Your task to perform on an android device: Check the settings for the Amazon Music app Image 0: 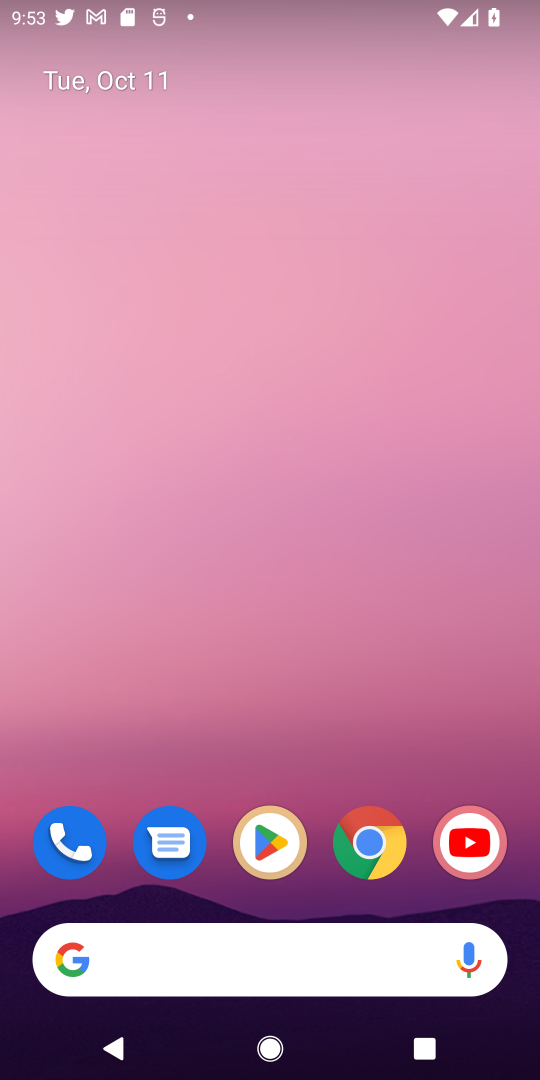
Step 0: click (371, 837)
Your task to perform on an android device: Check the settings for the Amazon Music app Image 1: 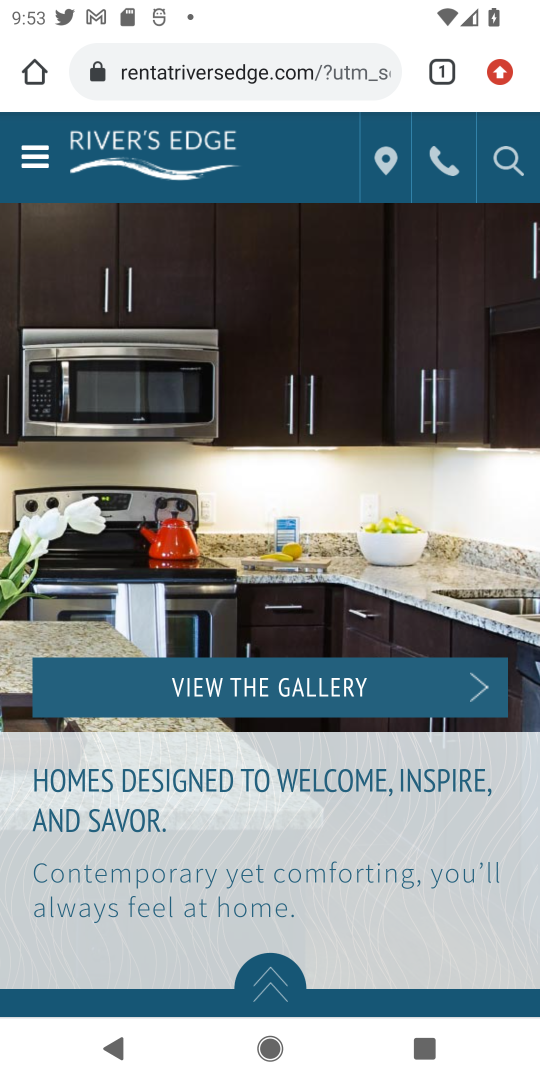
Step 1: click (193, 71)
Your task to perform on an android device: Check the settings for the Amazon Music app Image 2: 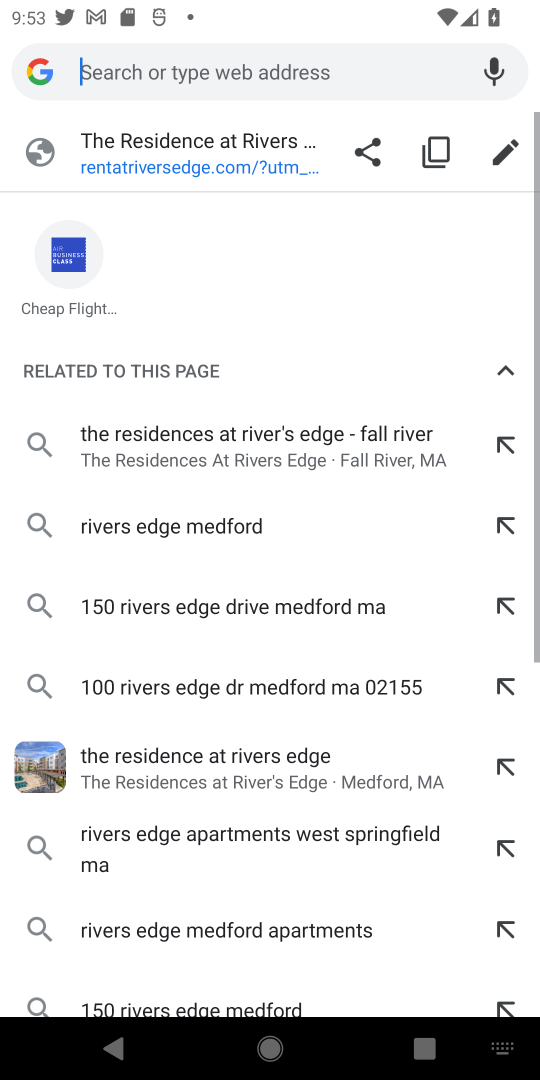
Step 2: press home button
Your task to perform on an android device: Check the settings for the Amazon Music app Image 3: 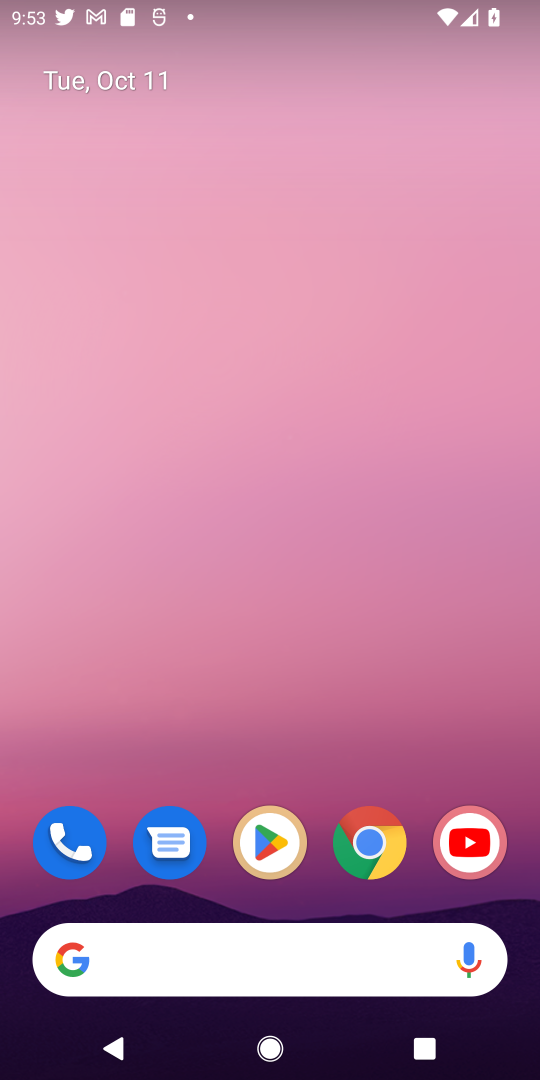
Step 3: drag from (306, 694) to (339, 276)
Your task to perform on an android device: Check the settings for the Amazon Music app Image 4: 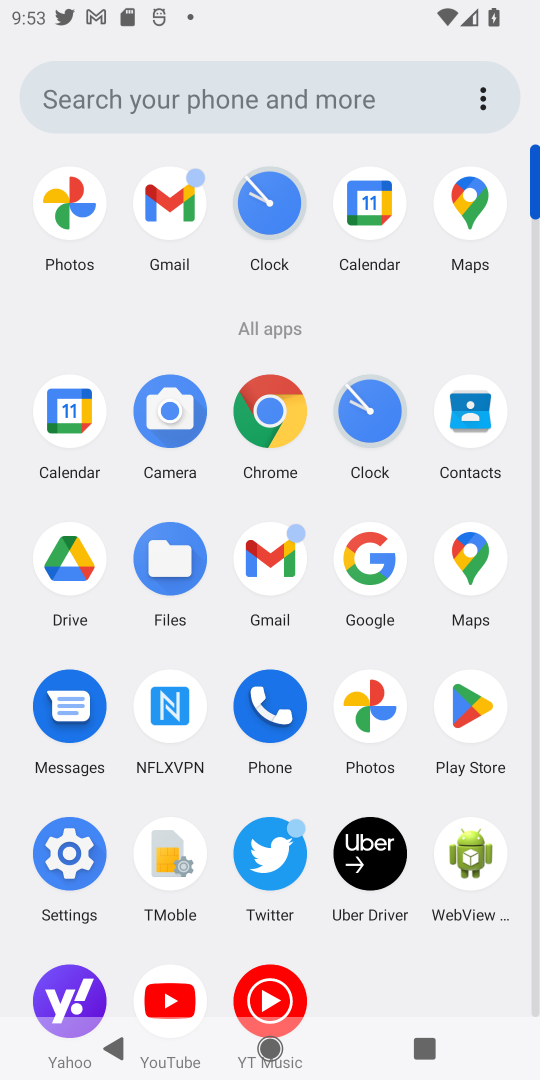
Step 4: drag from (141, 869) to (243, 437)
Your task to perform on an android device: Check the settings for the Amazon Music app Image 5: 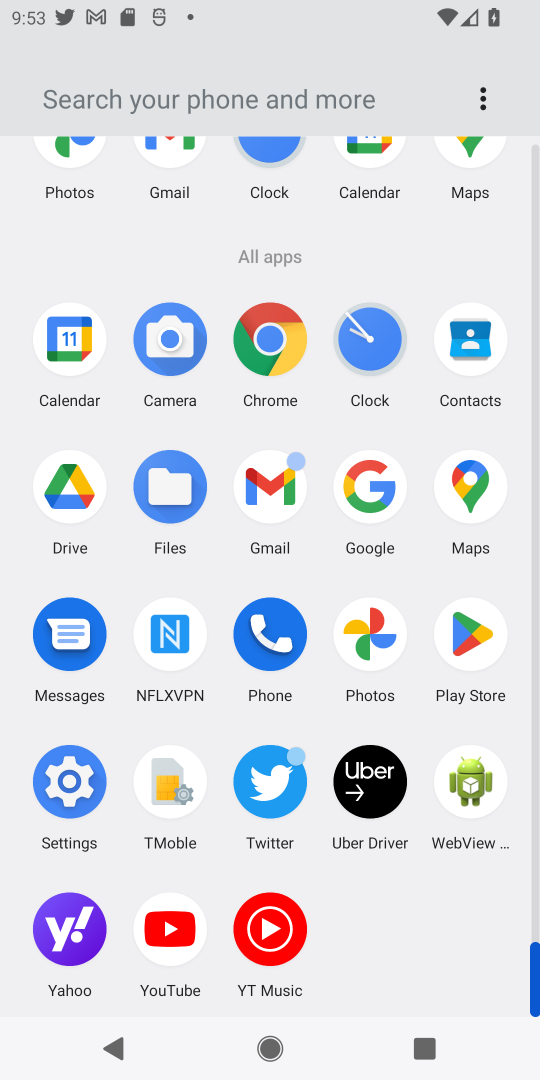
Step 5: drag from (308, 498) to (307, 930)
Your task to perform on an android device: Check the settings for the Amazon Music app Image 6: 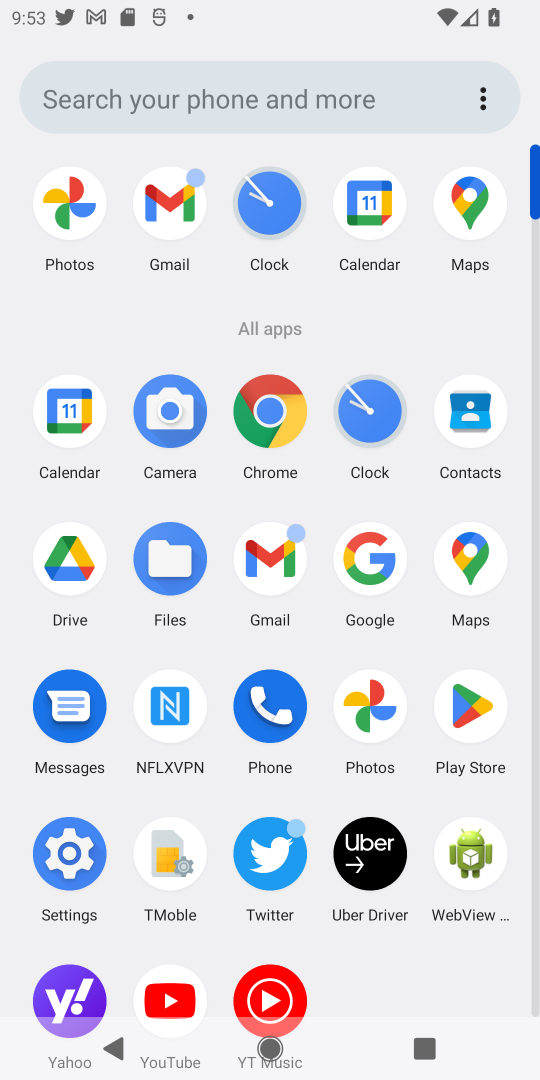
Step 6: click (215, 114)
Your task to perform on an android device: Check the settings for the Amazon Music app Image 7: 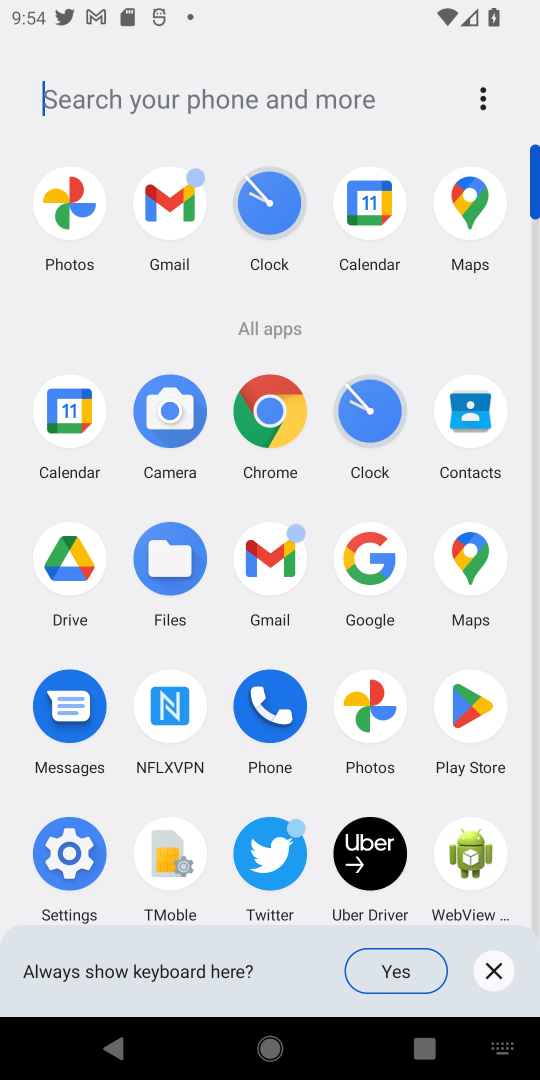
Step 7: type "amazon music app"
Your task to perform on an android device: Check the settings for the Amazon Music app Image 8: 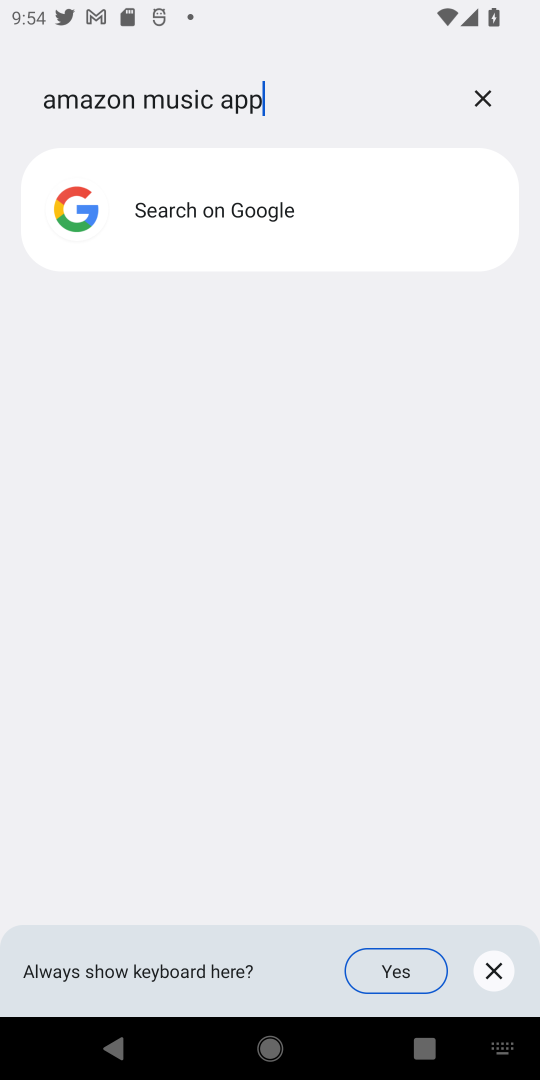
Step 8: type ""
Your task to perform on an android device: Check the settings for the Amazon Music app Image 9: 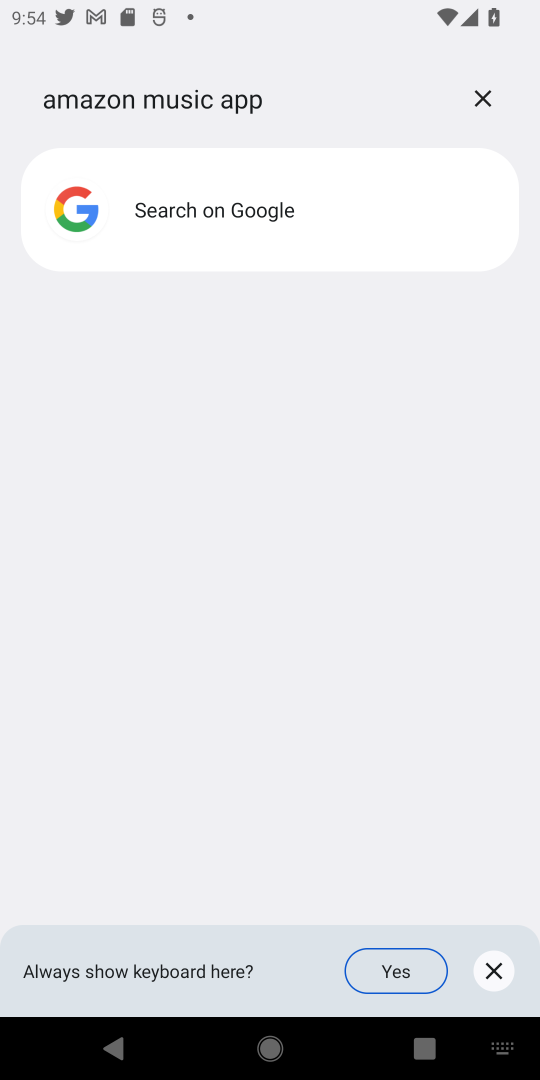
Step 9: click (487, 961)
Your task to perform on an android device: Check the settings for the Amazon Music app Image 10: 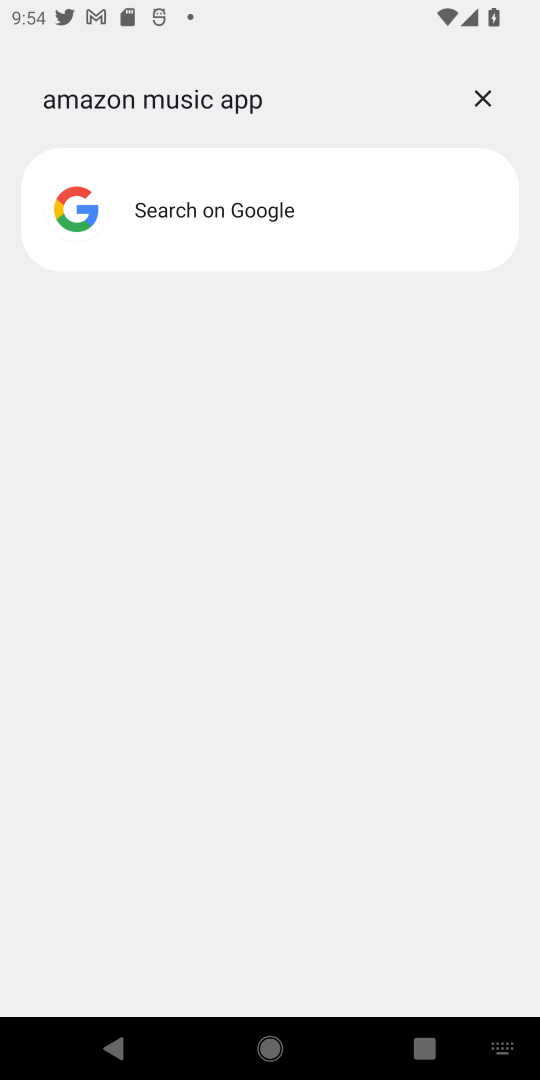
Step 10: click (476, 89)
Your task to perform on an android device: Check the settings for the Amazon Music app Image 11: 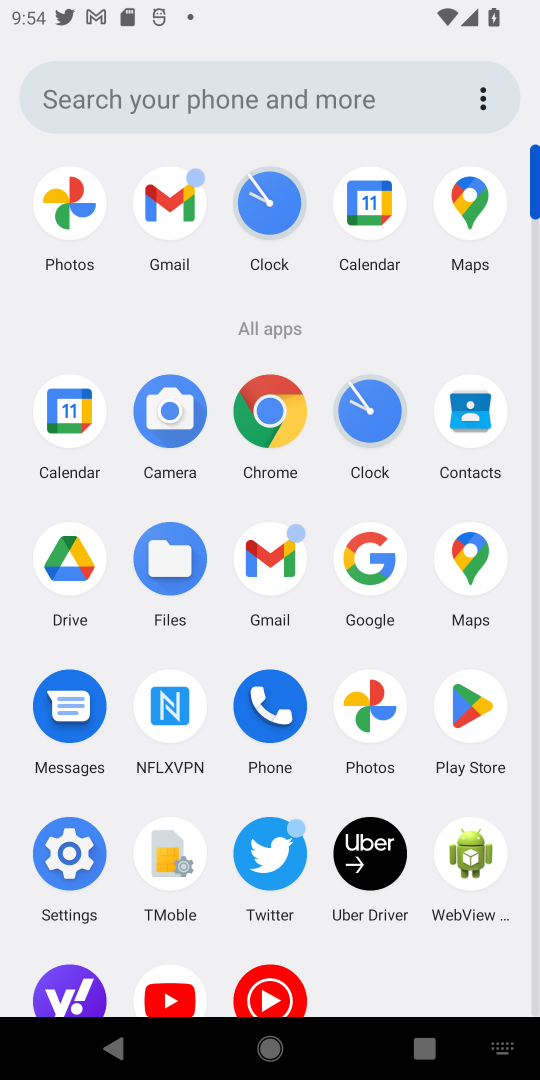
Step 11: drag from (182, 763) to (257, 273)
Your task to perform on an android device: Check the settings for the Amazon Music app Image 12: 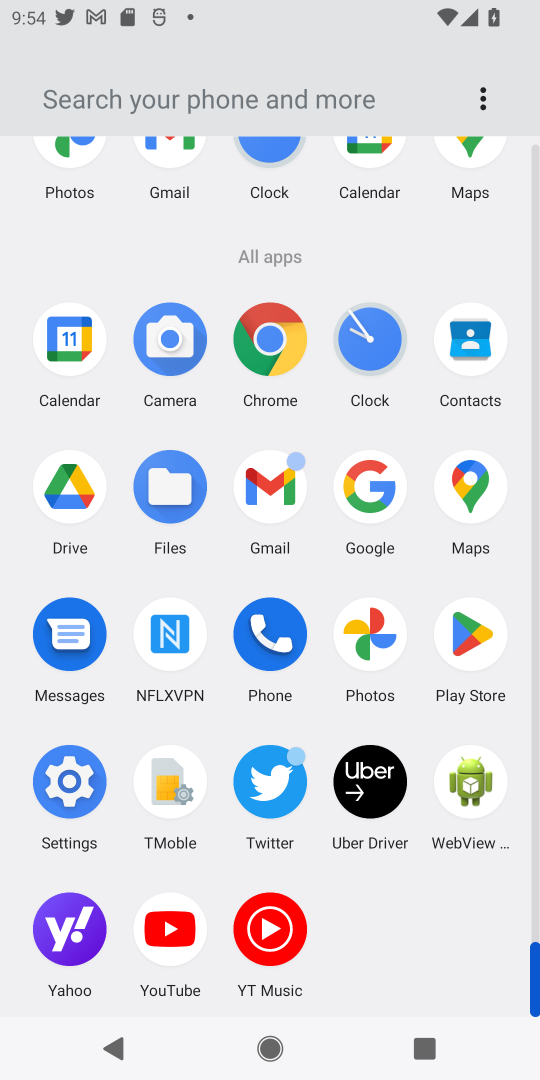
Step 12: drag from (199, 777) to (260, 526)
Your task to perform on an android device: Check the settings for the Amazon Music app Image 13: 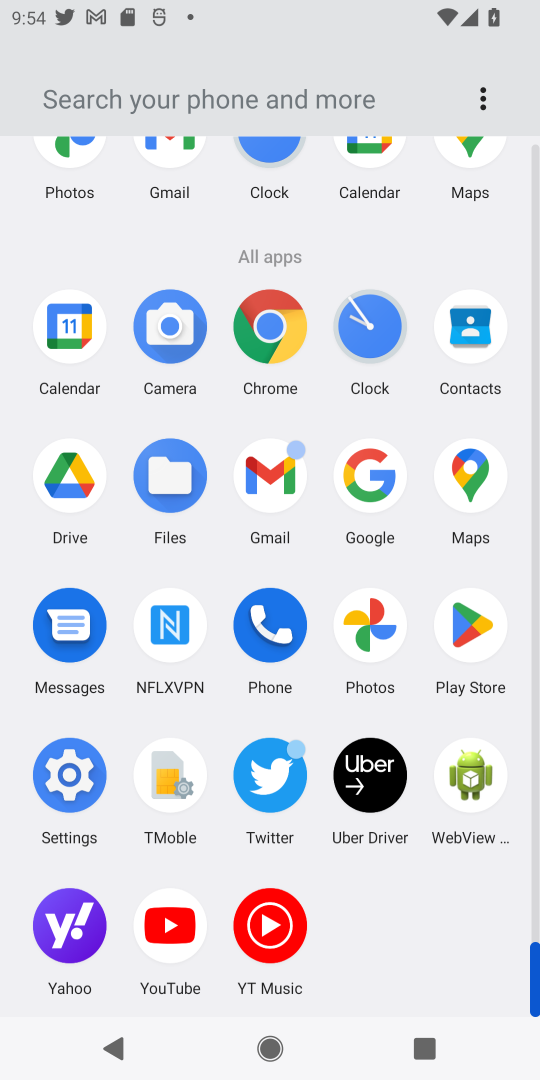
Step 13: drag from (406, 327) to (348, 972)
Your task to perform on an android device: Check the settings for the Amazon Music app Image 14: 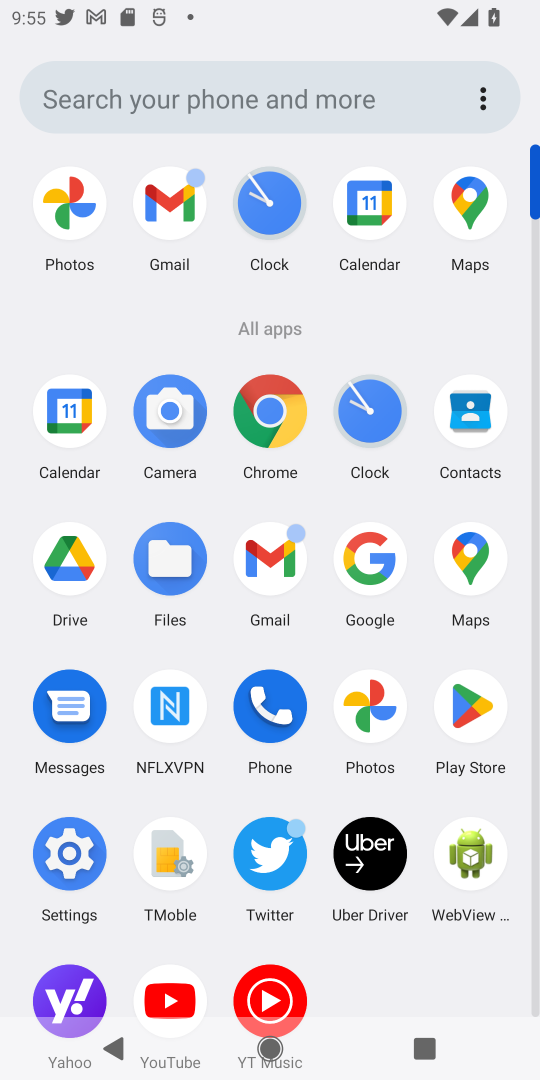
Step 14: drag from (345, 372) to (277, 991)
Your task to perform on an android device: Check the settings for the Amazon Music app Image 15: 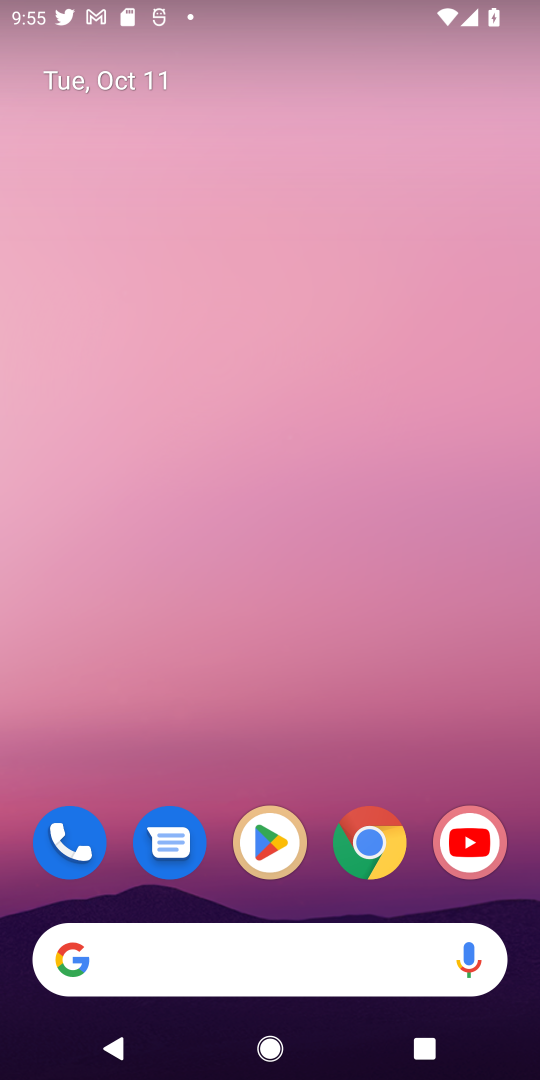
Step 15: drag from (271, 741) to (382, 202)
Your task to perform on an android device: Check the settings for the Amazon Music app Image 16: 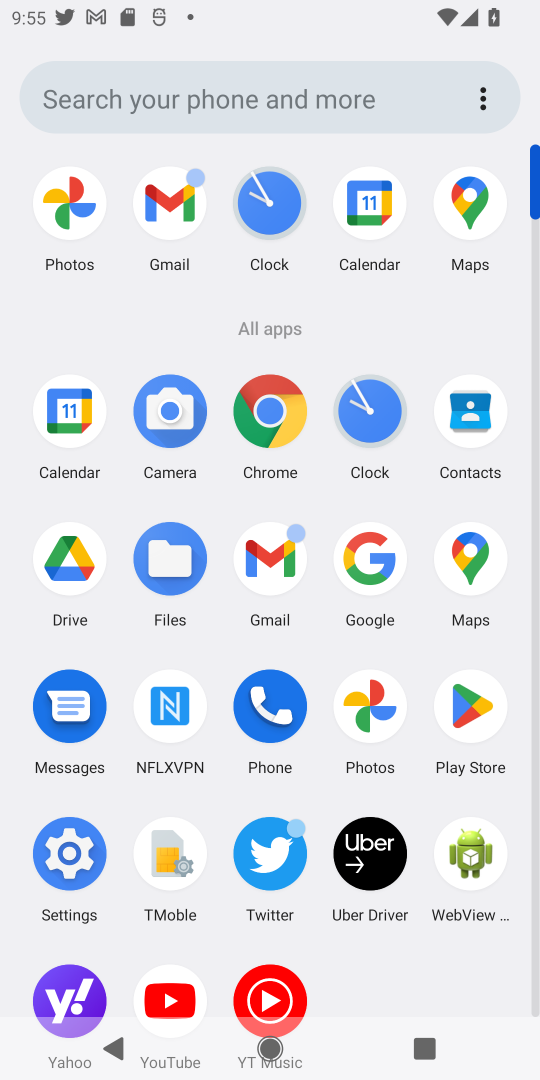
Step 16: drag from (399, 968) to (478, 433)
Your task to perform on an android device: Check the settings for the Amazon Music app Image 17: 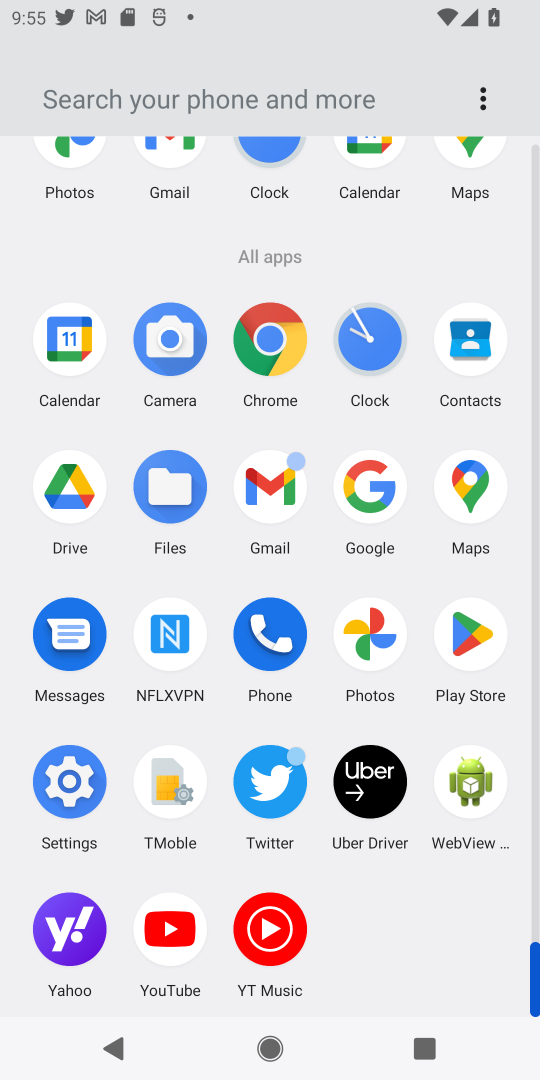
Step 17: click (218, 95)
Your task to perform on an android device: Check the settings for the Amazon Music app Image 18: 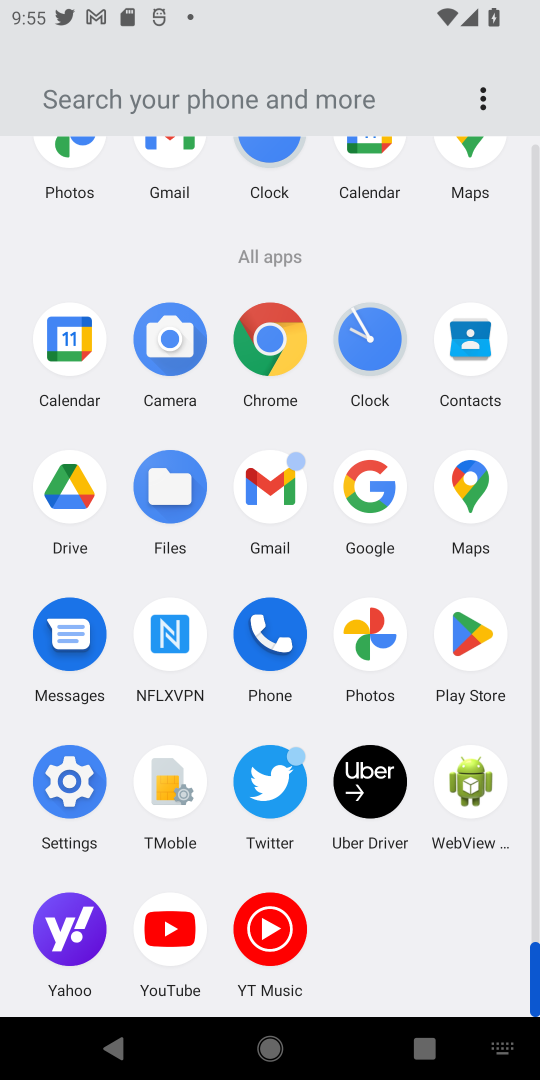
Step 18: type "amazon music app"
Your task to perform on an android device: Check the settings for the Amazon Music app Image 19: 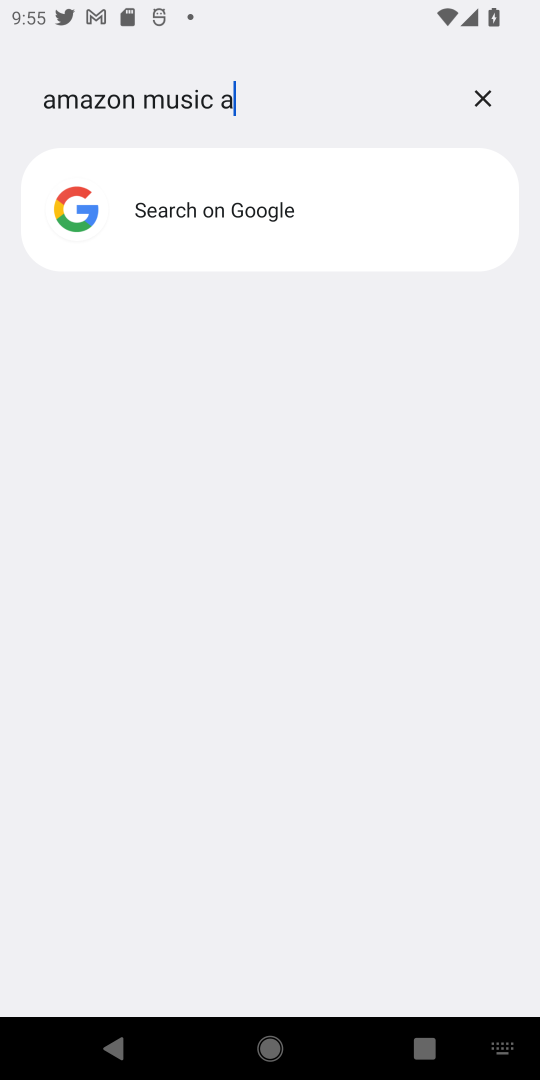
Step 19: type ""
Your task to perform on an android device: Check the settings for the Amazon Music app Image 20: 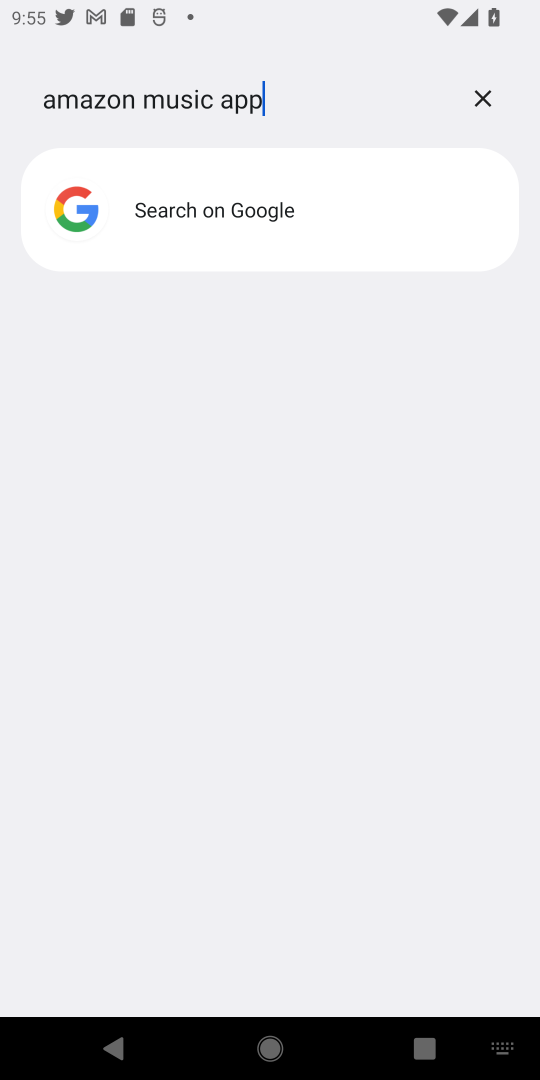
Step 20: click (482, 102)
Your task to perform on an android device: Check the settings for the Amazon Music app Image 21: 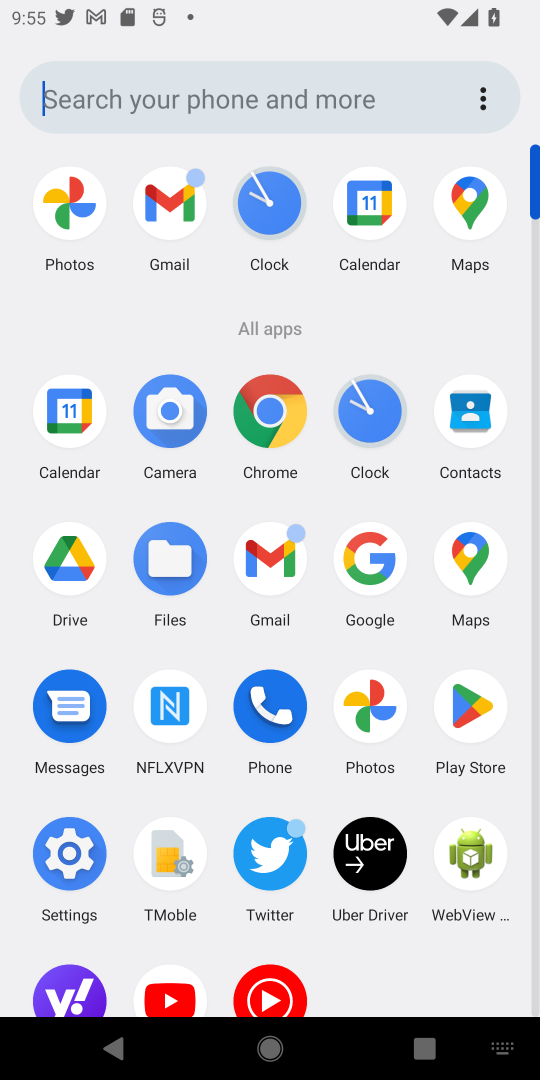
Step 21: click (533, 183)
Your task to perform on an android device: Check the settings for the Amazon Music app Image 22: 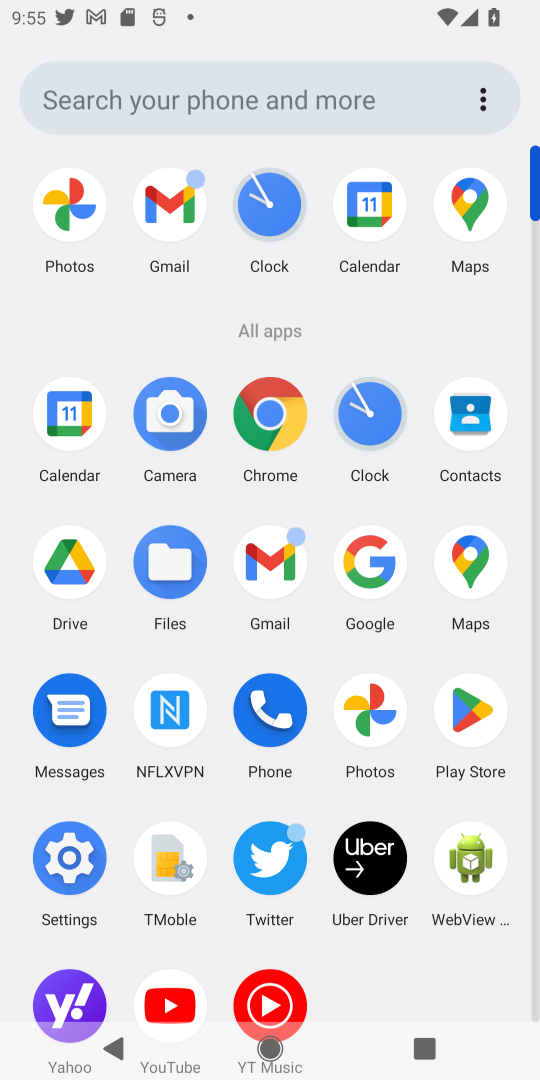
Step 22: drag from (537, 200) to (524, 417)
Your task to perform on an android device: Check the settings for the Amazon Music app Image 23: 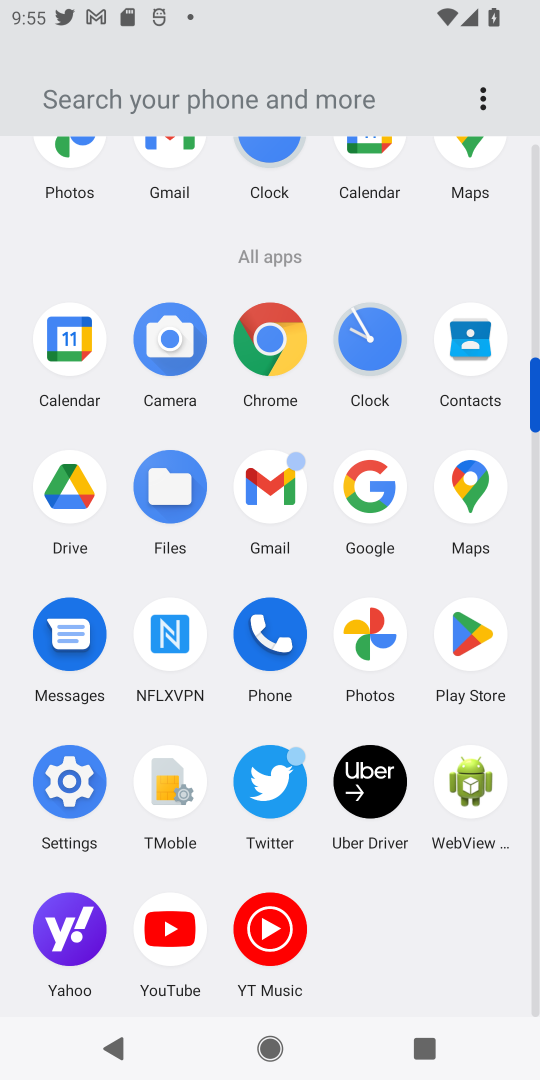
Step 23: drag from (539, 403) to (537, 546)
Your task to perform on an android device: Check the settings for the Amazon Music app Image 24: 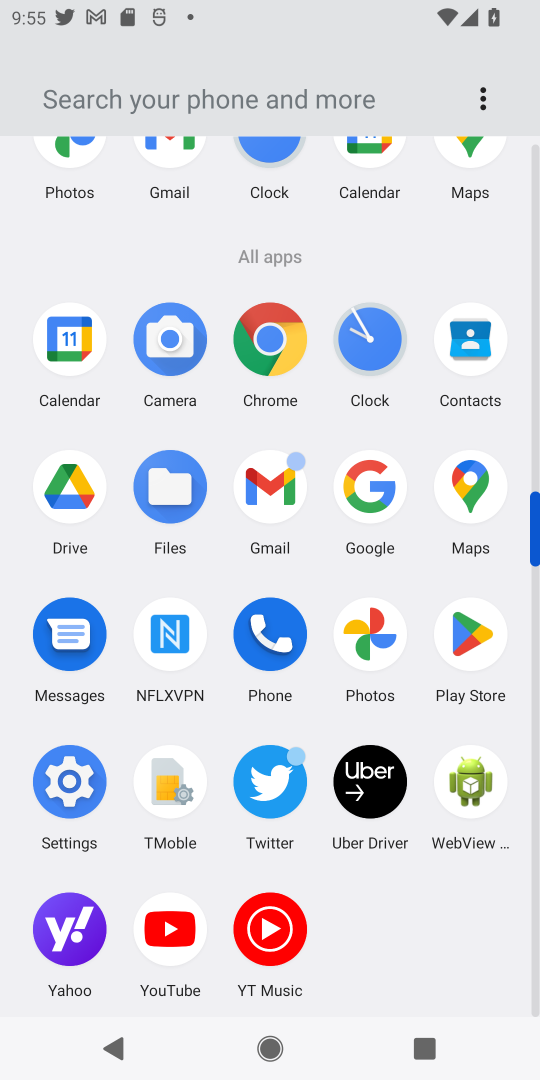
Step 24: drag from (533, 541) to (533, 751)
Your task to perform on an android device: Check the settings for the Amazon Music app Image 25: 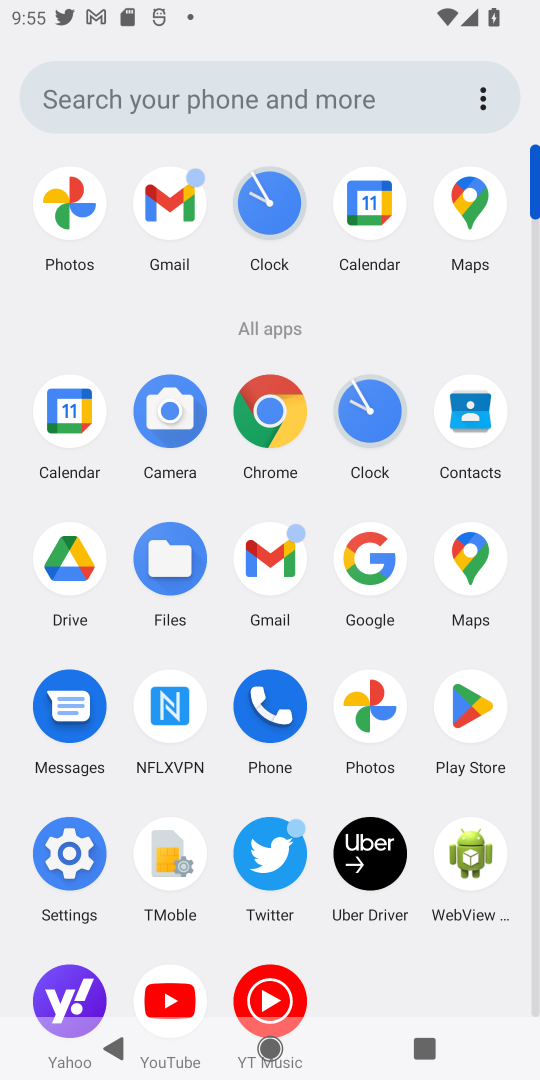
Step 25: press home button
Your task to perform on an android device: Check the settings for the Amazon Music app Image 26: 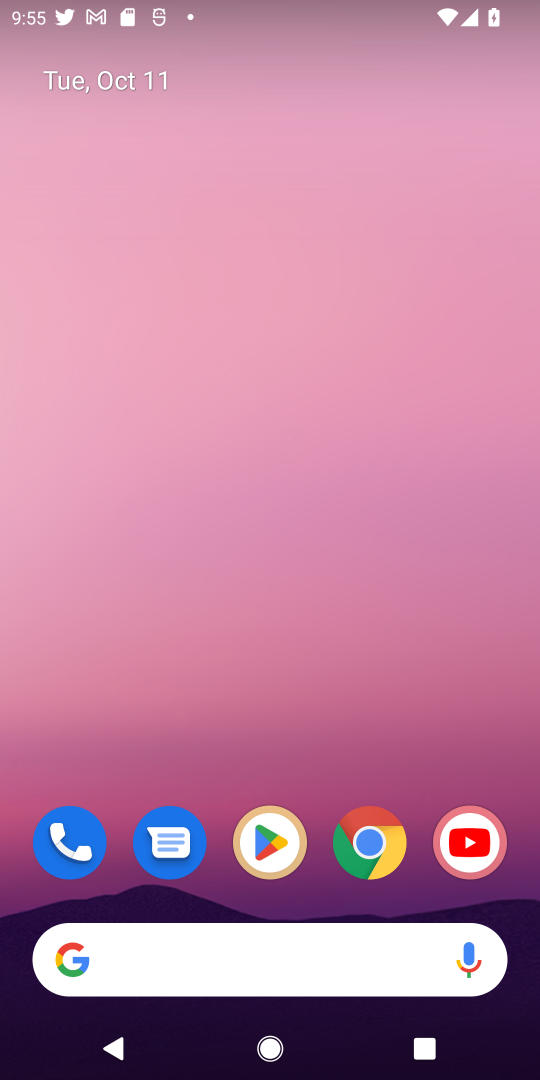
Step 26: click (260, 834)
Your task to perform on an android device: Check the settings for the Amazon Music app Image 27: 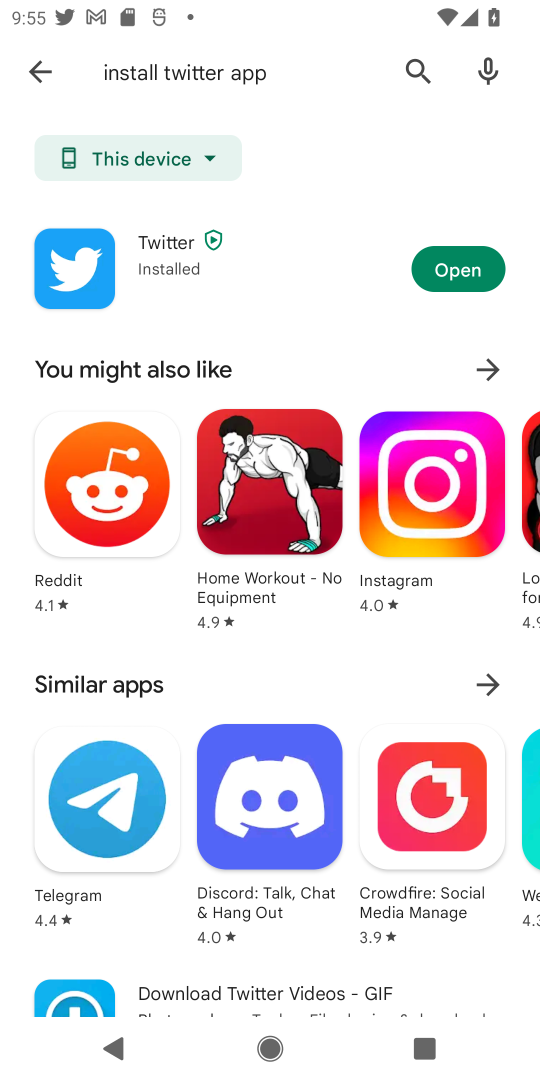
Step 27: click (409, 72)
Your task to perform on an android device: Check the settings for the Amazon Music app Image 28: 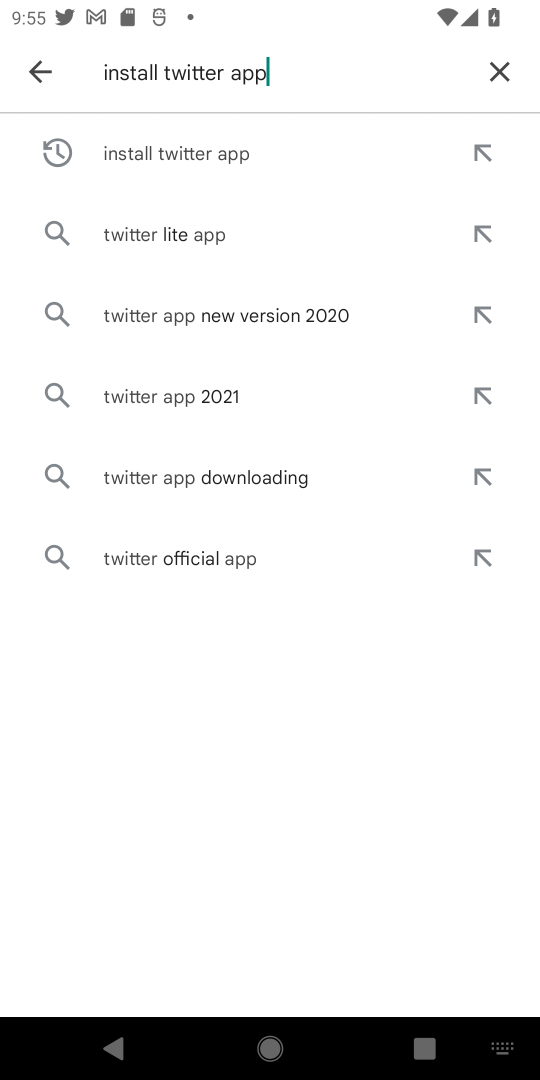
Step 28: click (502, 71)
Your task to perform on an android device: Check the settings for the Amazon Music app Image 29: 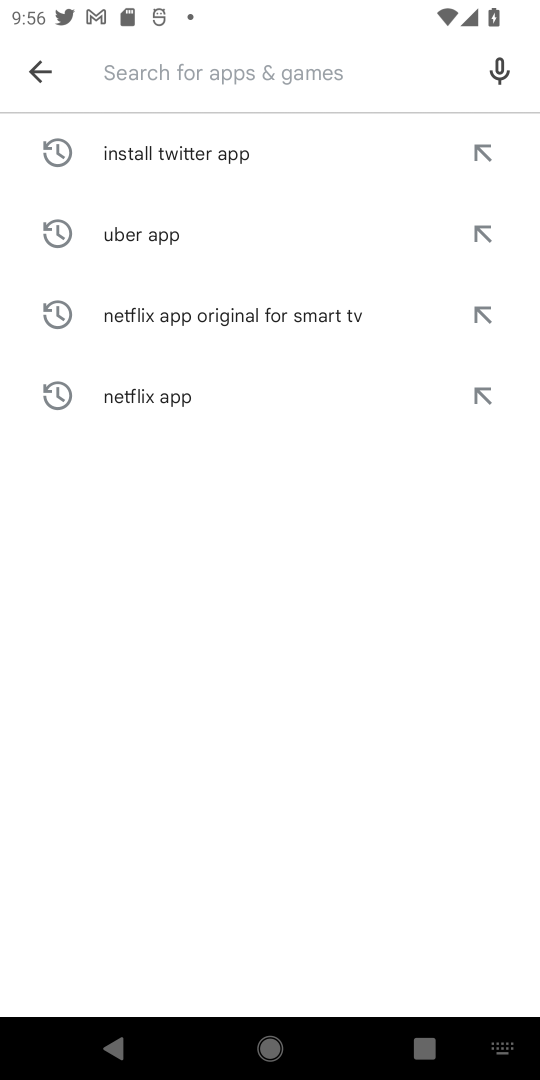
Step 29: type "amazon music app"
Your task to perform on an android device: Check the settings for the Amazon Music app Image 30: 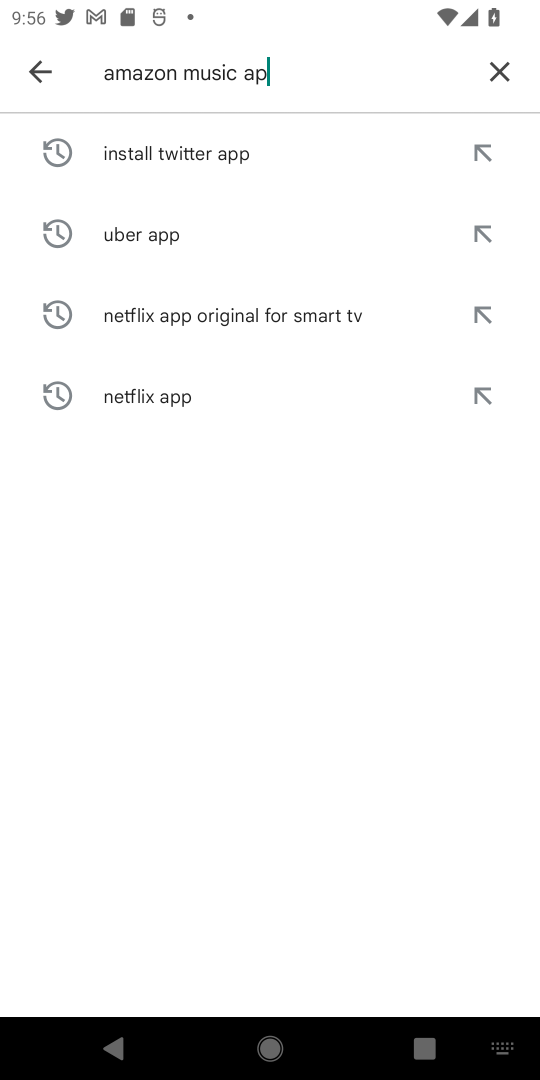
Step 30: type ""
Your task to perform on an android device: Check the settings for the Amazon Music app Image 31: 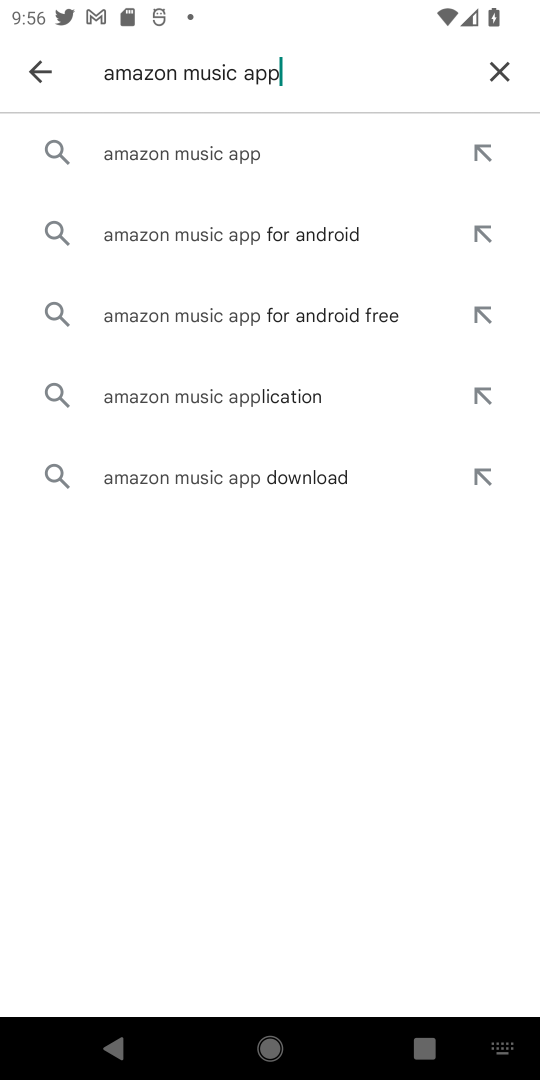
Step 31: click (180, 150)
Your task to perform on an android device: Check the settings for the Amazon Music app Image 32: 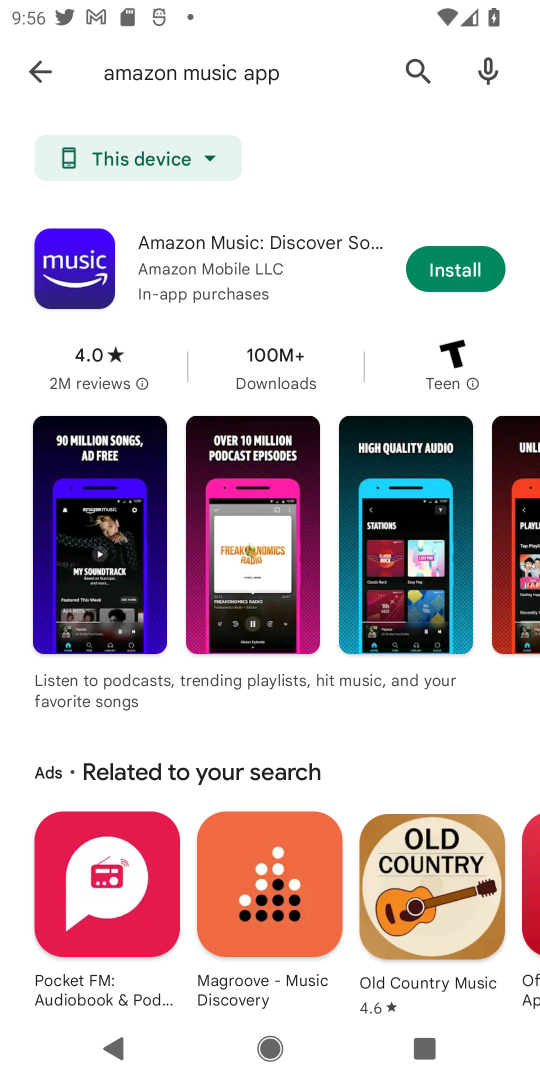
Step 32: click (451, 272)
Your task to perform on an android device: Check the settings for the Amazon Music app Image 33: 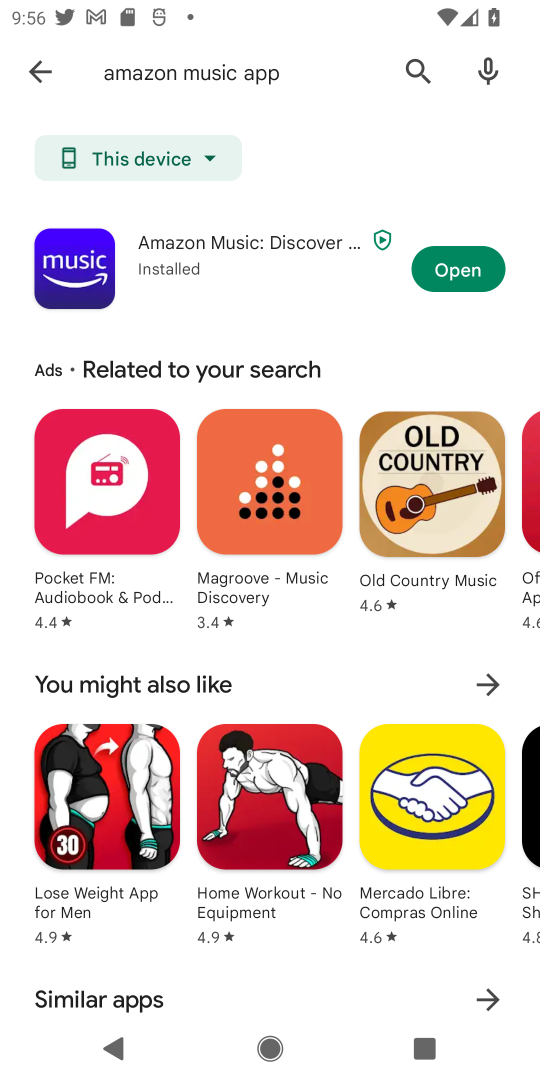
Step 33: click (450, 262)
Your task to perform on an android device: Check the settings for the Amazon Music app Image 34: 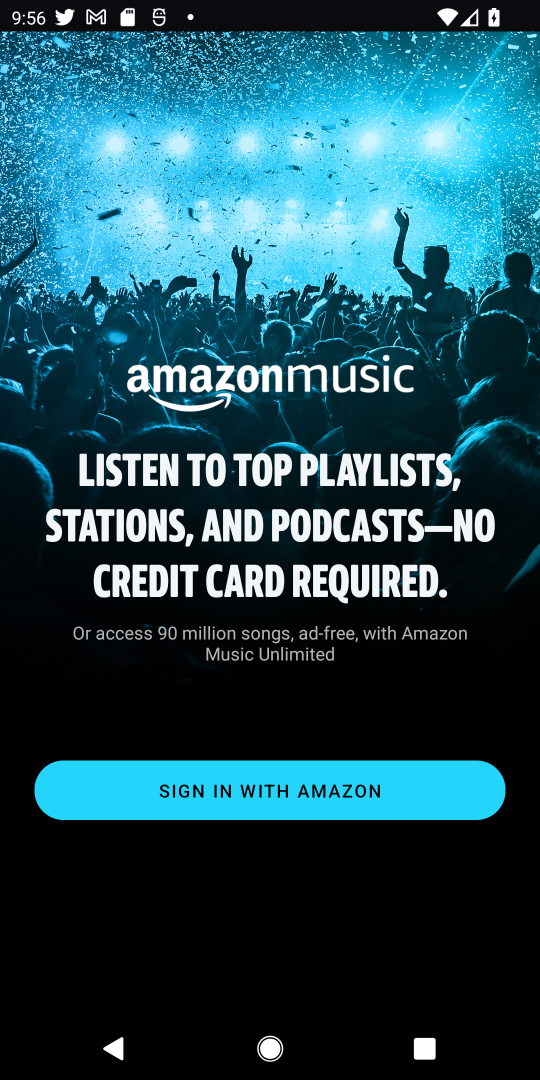
Step 34: click (322, 787)
Your task to perform on an android device: Check the settings for the Amazon Music app Image 35: 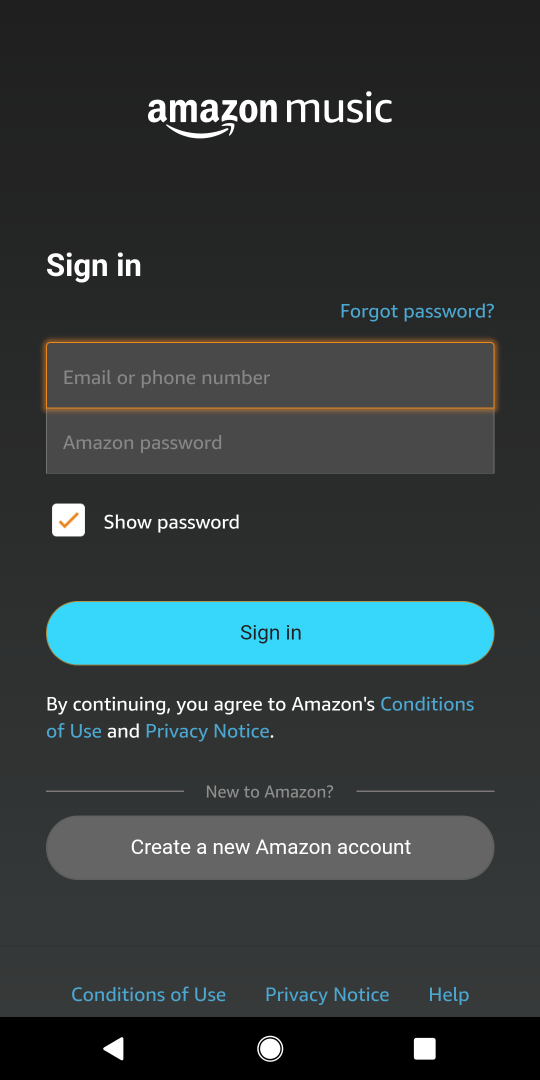
Step 35: task complete